Your task to perform on an android device: Open the calendar and show me this week's events? Image 0: 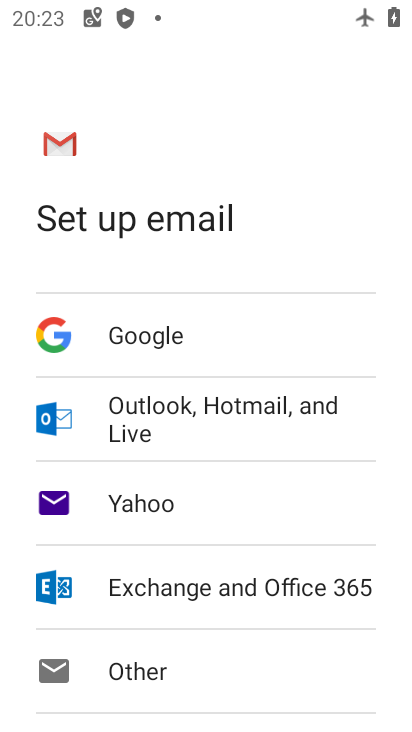
Step 0: press home button
Your task to perform on an android device: Open the calendar and show me this week's events? Image 1: 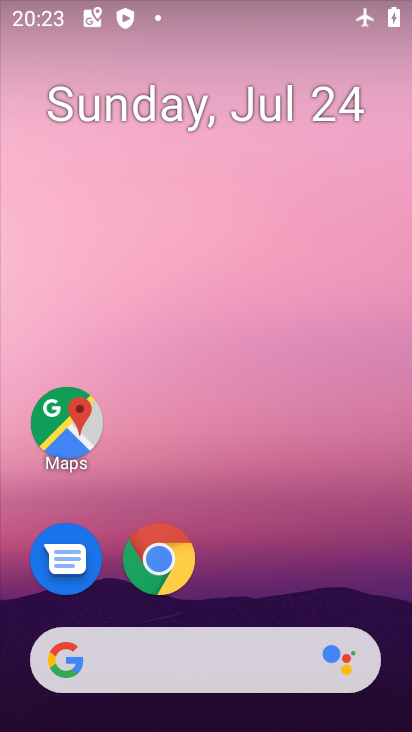
Step 1: drag from (356, 575) to (340, 95)
Your task to perform on an android device: Open the calendar and show me this week's events? Image 2: 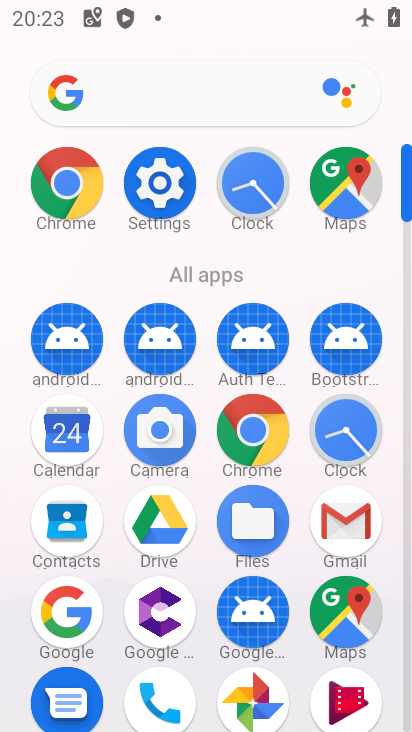
Step 2: click (62, 444)
Your task to perform on an android device: Open the calendar and show me this week's events? Image 3: 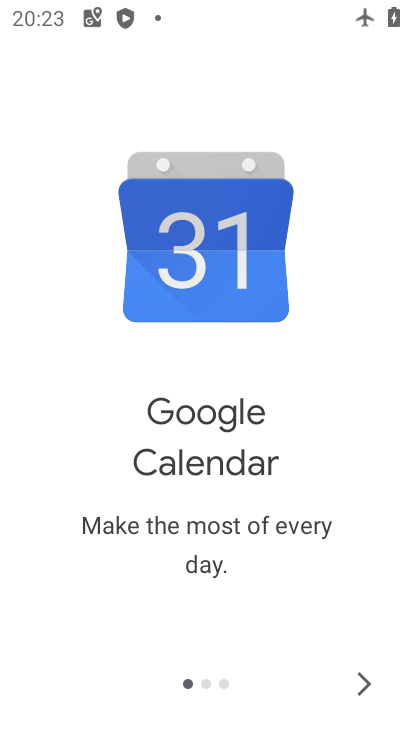
Step 3: click (357, 685)
Your task to perform on an android device: Open the calendar and show me this week's events? Image 4: 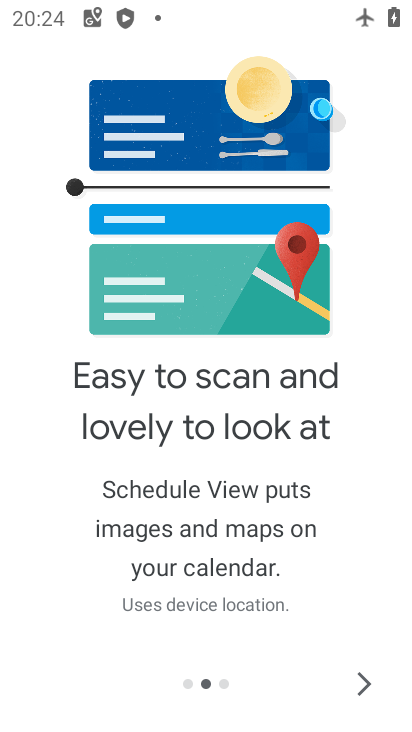
Step 4: click (357, 685)
Your task to perform on an android device: Open the calendar and show me this week's events? Image 5: 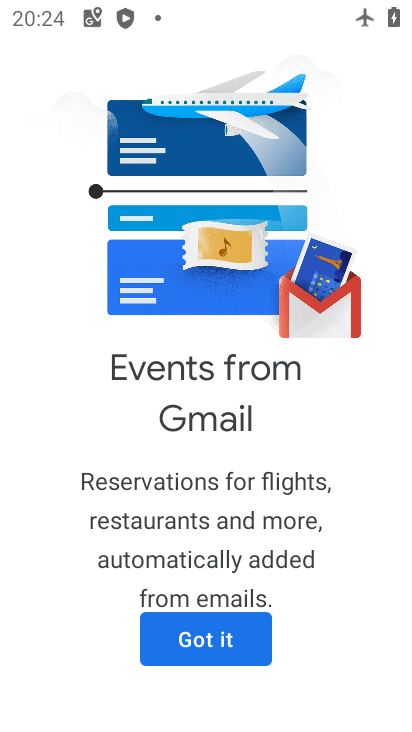
Step 5: click (257, 643)
Your task to perform on an android device: Open the calendar and show me this week's events? Image 6: 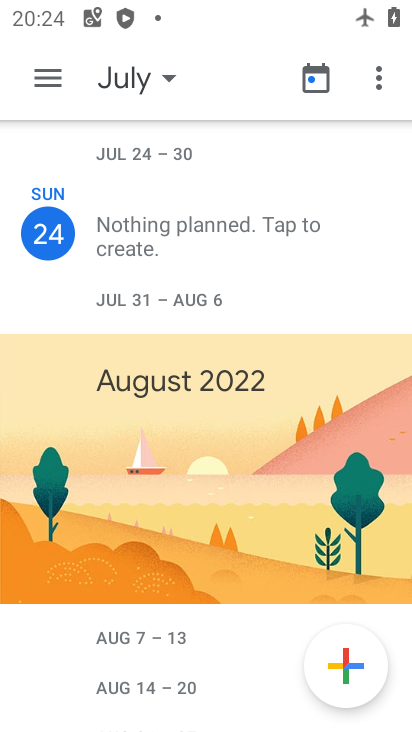
Step 6: click (170, 73)
Your task to perform on an android device: Open the calendar and show me this week's events? Image 7: 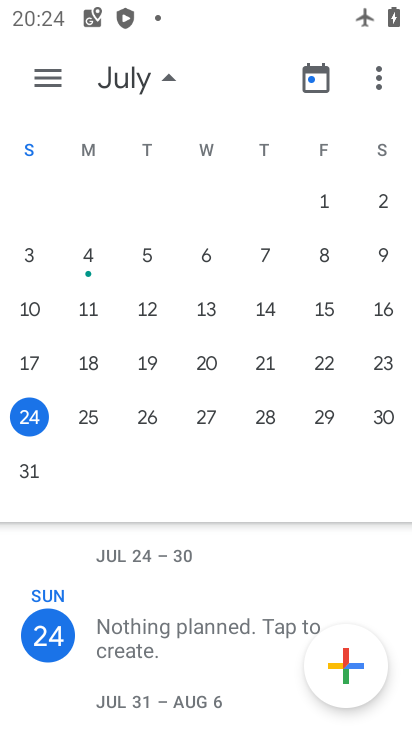
Step 7: click (87, 417)
Your task to perform on an android device: Open the calendar and show me this week's events? Image 8: 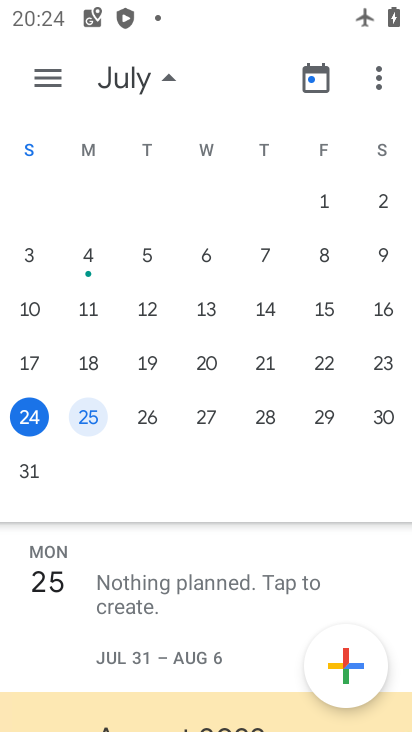
Step 8: task complete